Your task to perform on an android device: empty trash in google photos Image 0: 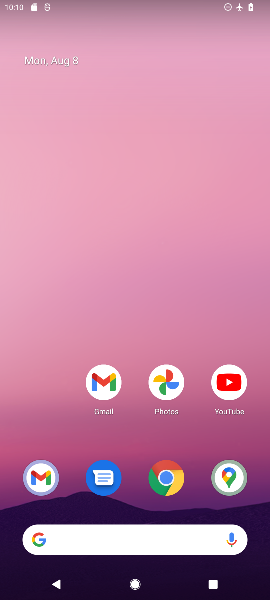
Step 0: click (156, 377)
Your task to perform on an android device: empty trash in google photos Image 1: 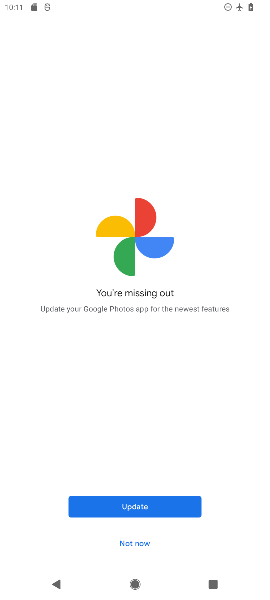
Step 1: click (123, 539)
Your task to perform on an android device: empty trash in google photos Image 2: 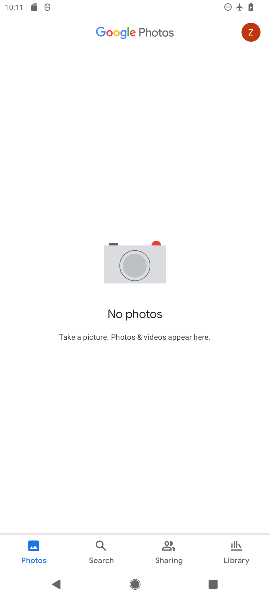
Step 2: click (162, 540)
Your task to perform on an android device: empty trash in google photos Image 3: 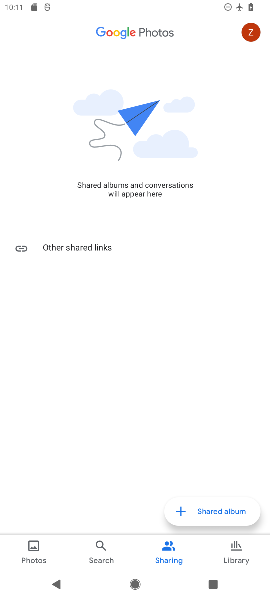
Step 3: click (243, 556)
Your task to perform on an android device: empty trash in google photos Image 4: 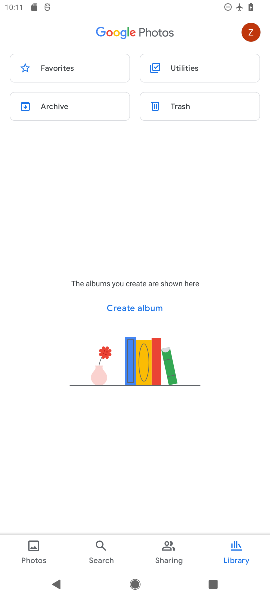
Step 4: click (161, 101)
Your task to perform on an android device: empty trash in google photos Image 5: 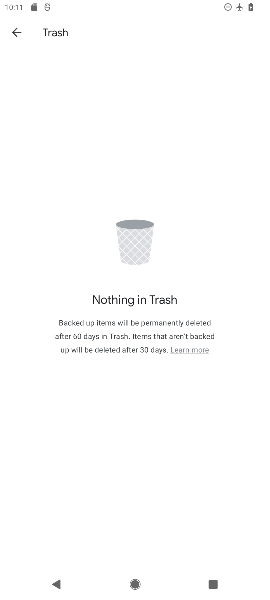
Step 5: task complete